Your task to perform on an android device: Set the phone to "Do not disturb". Image 0: 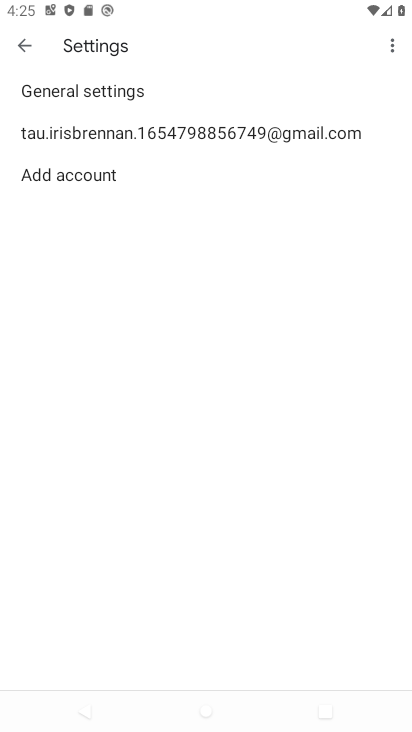
Step 0: press home button
Your task to perform on an android device: Set the phone to "Do not disturb". Image 1: 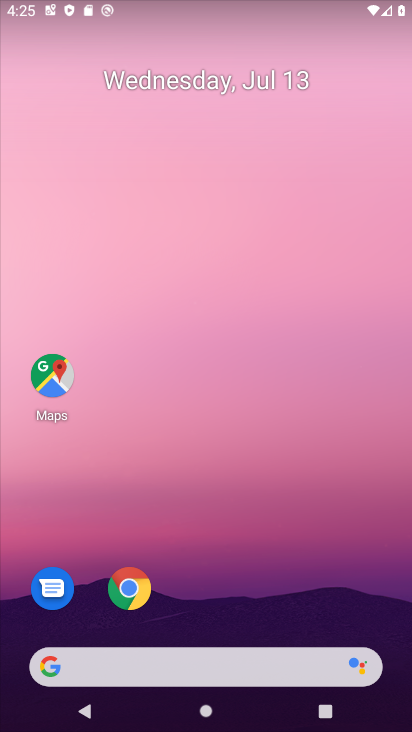
Step 1: drag from (20, 713) to (220, 154)
Your task to perform on an android device: Set the phone to "Do not disturb". Image 2: 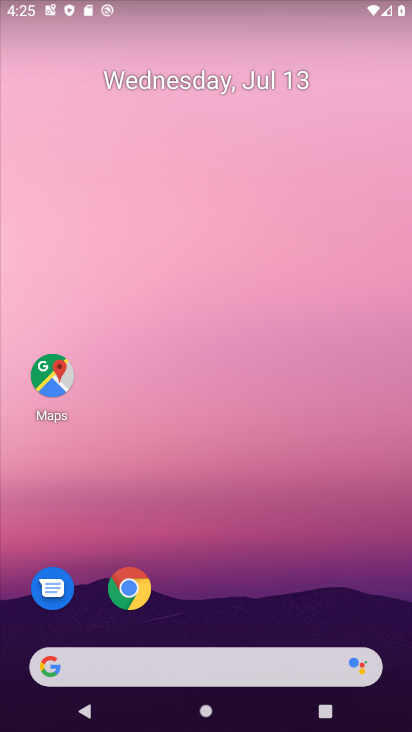
Step 2: drag from (50, 710) to (237, 10)
Your task to perform on an android device: Set the phone to "Do not disturb". Image 3: 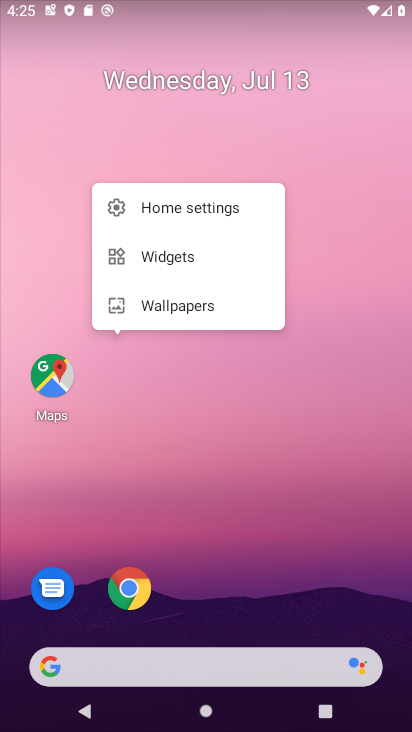
Step 3: drag from (18, 688) to (287, 53)
Your task to perform on an android device: Set the phone to "Do not disturb". Image 4: 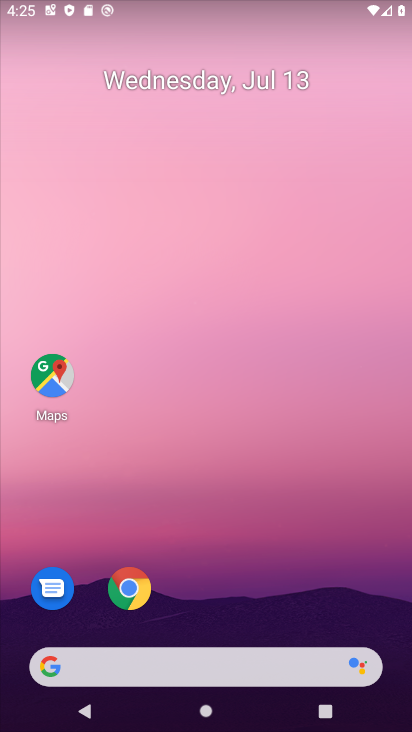
Step 4: drag from (17, 708) to (335, 35)
Your task to perform on an android device: Set the phone to "Do not disturb". Image 5: 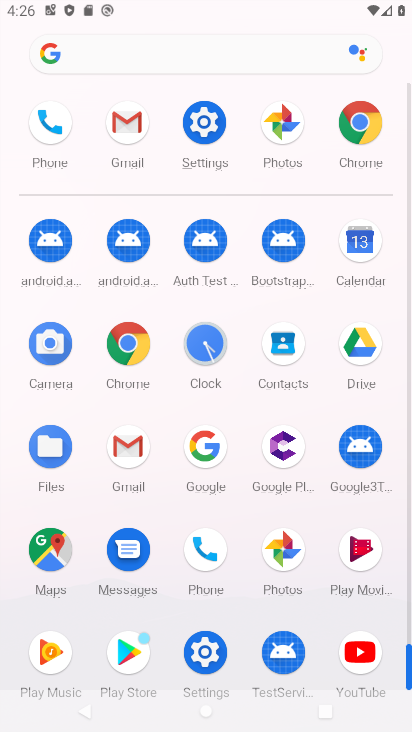
Step 5: click (194, 660)
Your task to perform on an android device: Set the phone to "Do not disturb". Image 6: 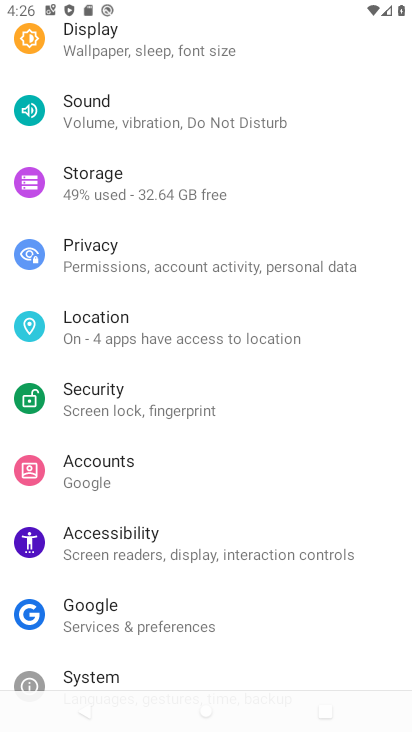
Step 6: click (177, 125)
Your task to perform on an android device: Set the phone to "Do not disturb". Image 7: 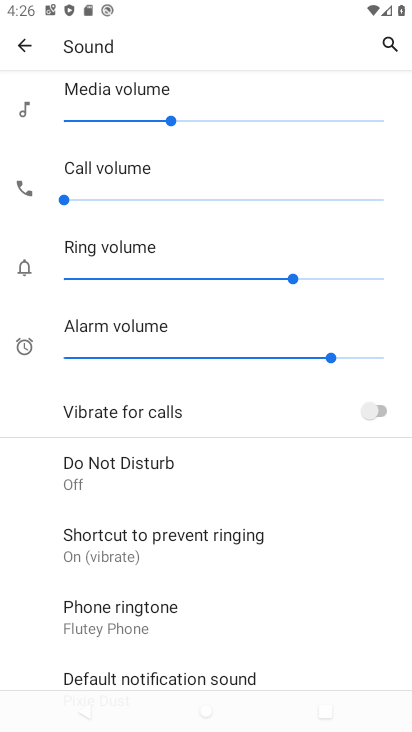
Step 7: click (102, 476)
Your task to perform on an android device: Set the phone to "Do not disturb". Image 8: 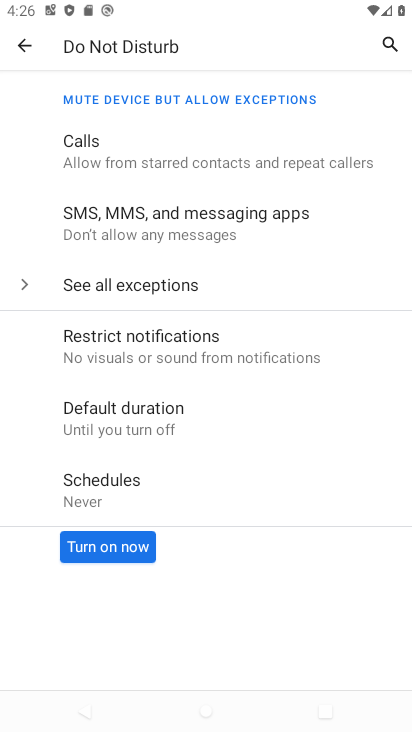
Step 8: task complete